Your task to perform on an android device: Open settings on Google Maps Image 0: 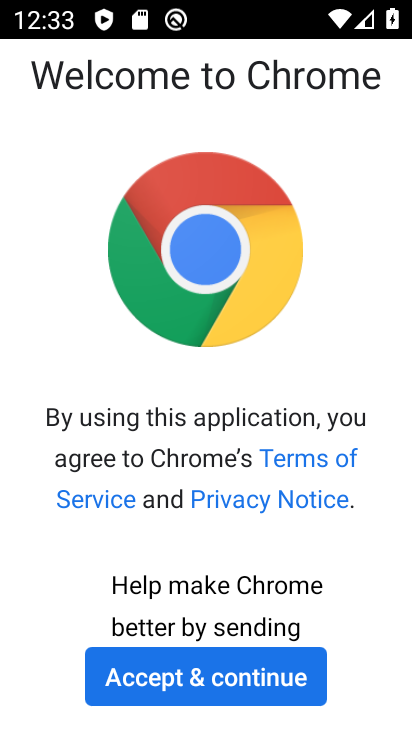
Step 0: press home button
Your task to perform on an android device: Open settings on Google Maps Image 1: 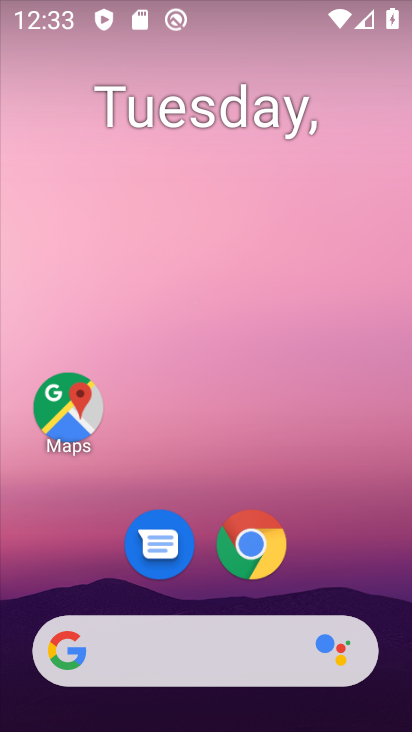
Step 1: click (68, 406)
Your task to perform on an android device: Open settings on Google Maps Image 2: 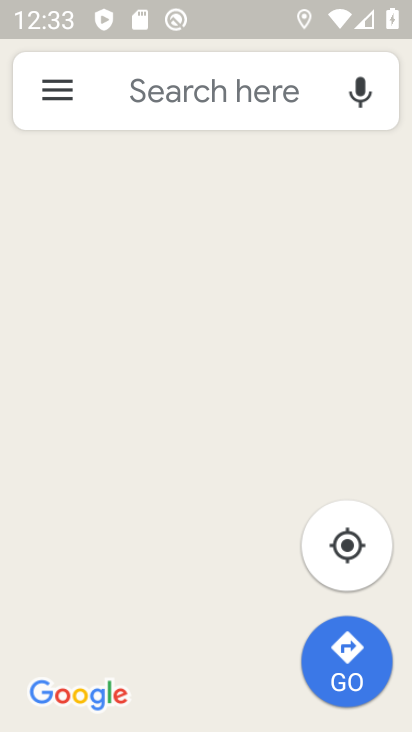
Step 2: click (45, 85)
Your task to perform on an android device: Open settings on Google Maps Image 3: 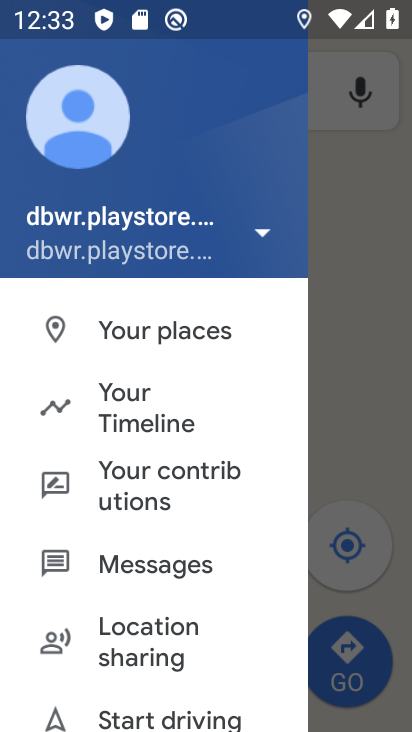
Step 3: drag from (208, 646) to (218, 225)
Your task to perform on an android device: Open settings on Google Maps Image 4: 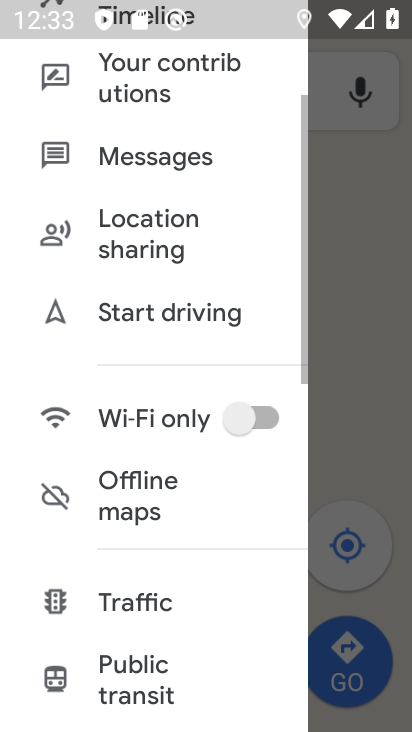
Step 4: drag from (241, 671) to (231, 240)
Your task to perform on an android device: Open settings on Google Maps Image 5: 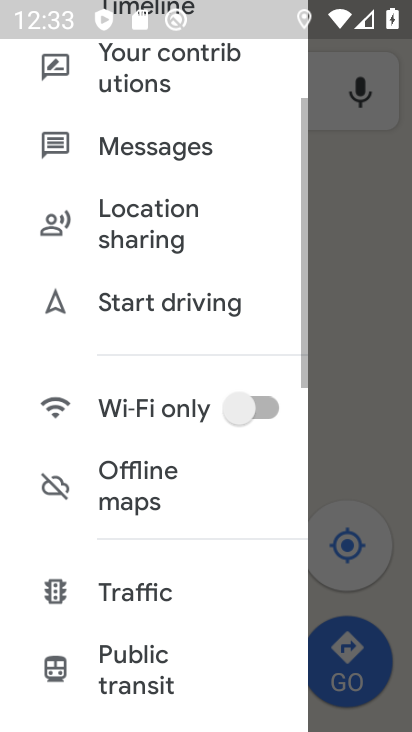
Step 5: drag from (226, 689) to (245, 218)
Your task to perform on an android device: Open settings on Google Maps Image 6: 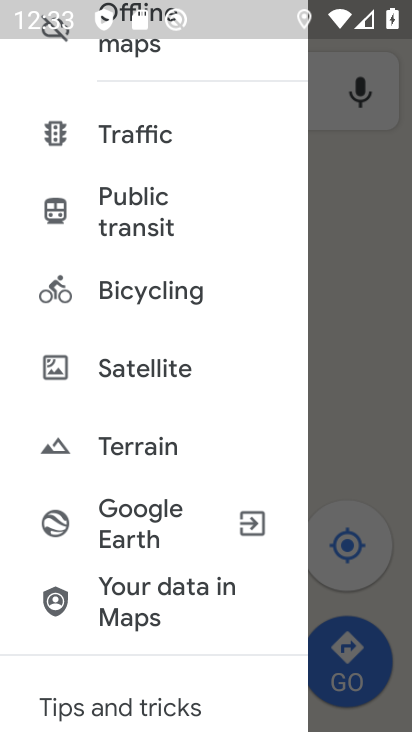
Step 6: drag from (265, 669) to (241, 243)
Your task to perform on an android device: Open settings on Google Maps Image 7: 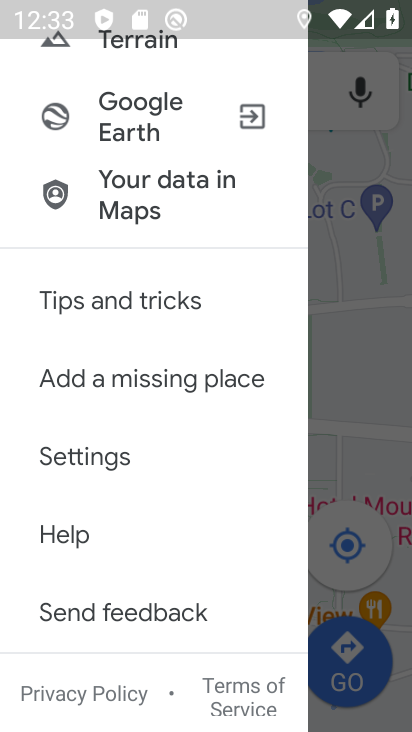
Step 7: click (98, 449)
Your task to perform on an android device: Open settings on Google Maps Image 8: 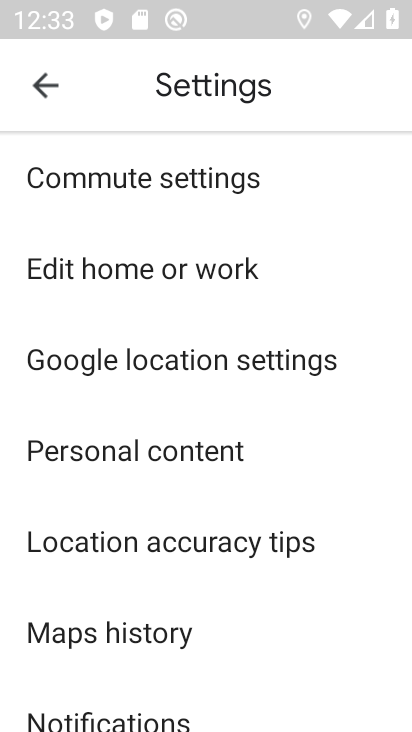
Step 8: task complete